Your task to perform on an android device: open the mobile data screen to see how much data has been used Image 0: 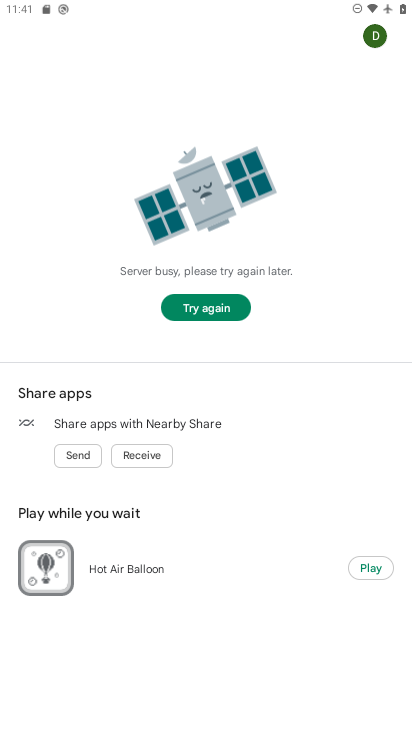
Step 0: press home button
Your task to perform on an android device: open the mobile data screen to see how much data has been used Image 1: 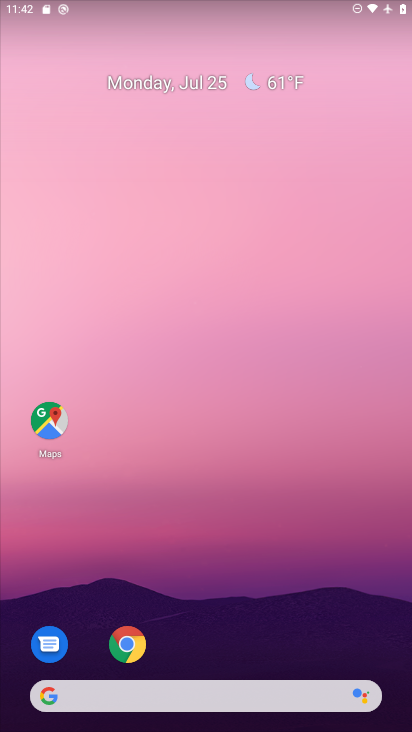
Step 1: drag from (168, 649) to (260, 182)
Your task to perform on an android device: open the mobile data screen to see how much data has been used Image 2: 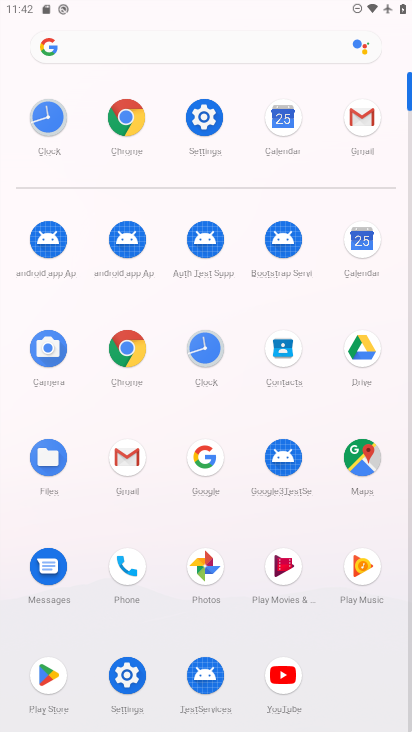
Step 2: click (209, 102)
Your task to perform on an android device: open the mobile data screen to see how much data has been used Image 3: 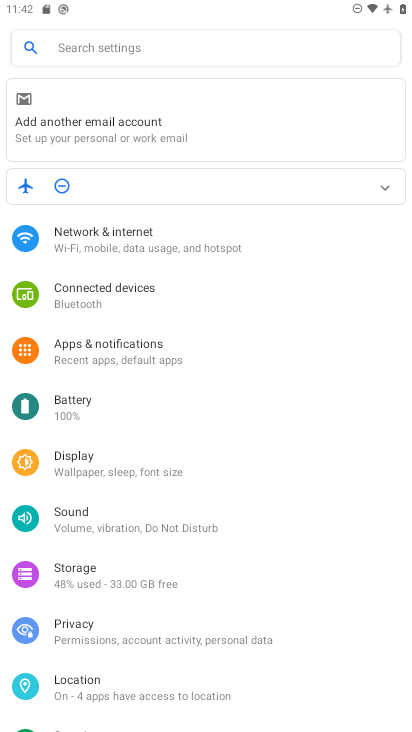
Step 3: click (135, 229)
Your task to perform on an android device: open the mobile data screen to see how much data has been used Image 4: 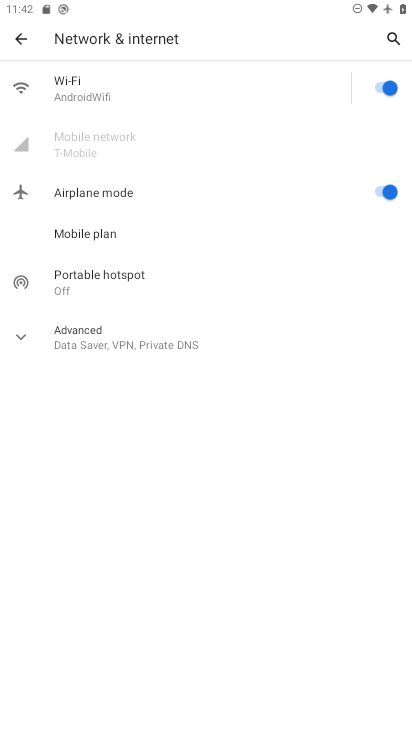
Step 4: click (107, 151)
Your task to perform on an android device: open the mobile data screen to see how much data has been used Image 5: 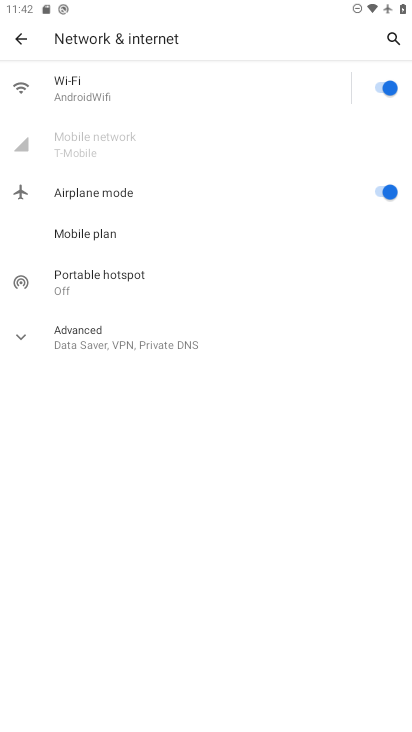
Step 5: task complete